Your task to perform on an android device: see creations saved in the google photos Image 0: 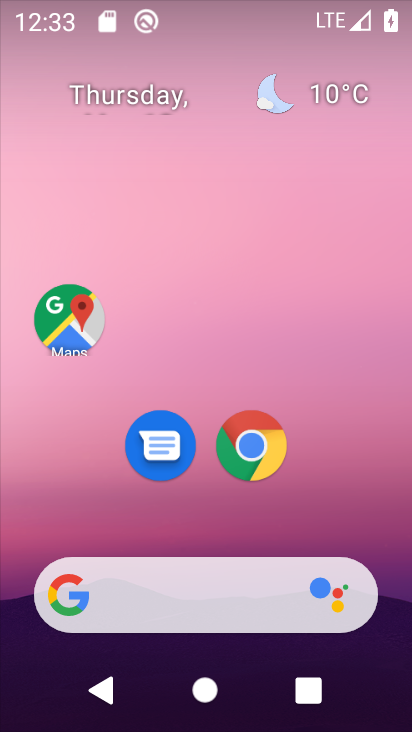
Step 0: drag from (215, 492) to (232, 12)
Your task to perform on an android device: see creations saved in the google photos Image 1: 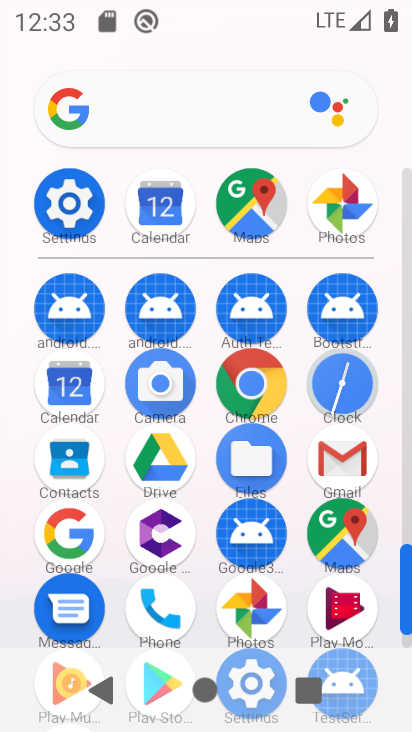
Step 1: click (257, 627)
Your task to perform on an android device: see creations saved in the google photos Image 2: 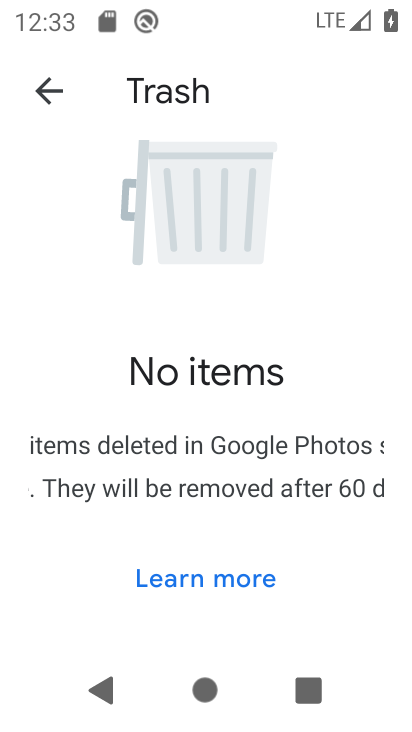
Step 2: click (46, 76)
Your task to perform on an android device: see creations saved in the google photos Image 3: 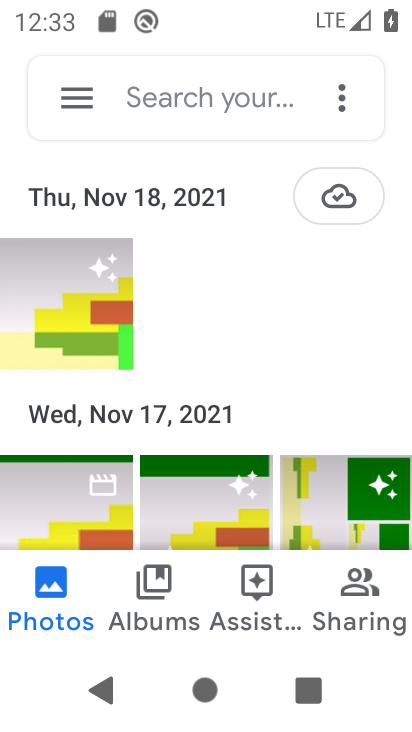
Step 3: click (78, 88)
Your task to perform on an android device: see creations saved in the google photos Image 4: 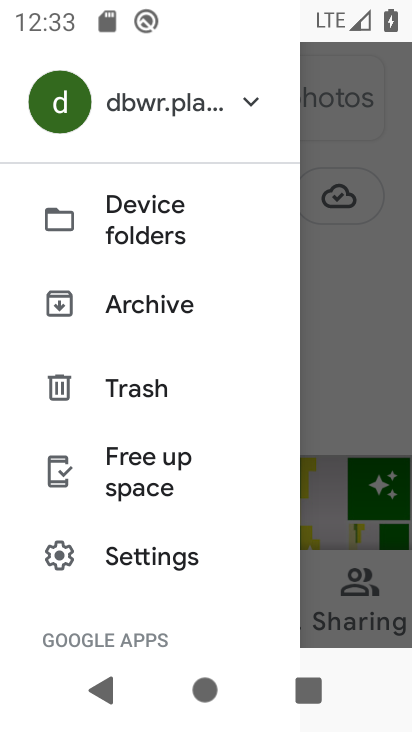
Step 4: click (141, 307)
Your task to perform on an android device: see creations saved in the google photos Image 5: 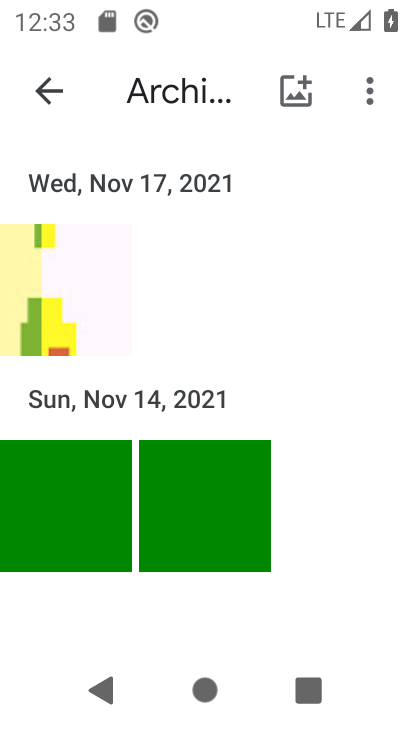
Step 5: task complete